Your task to perform on an android device: Empty the shopping cart on newegg. Add jbl flip 4 to the cart on newegg Image 0: 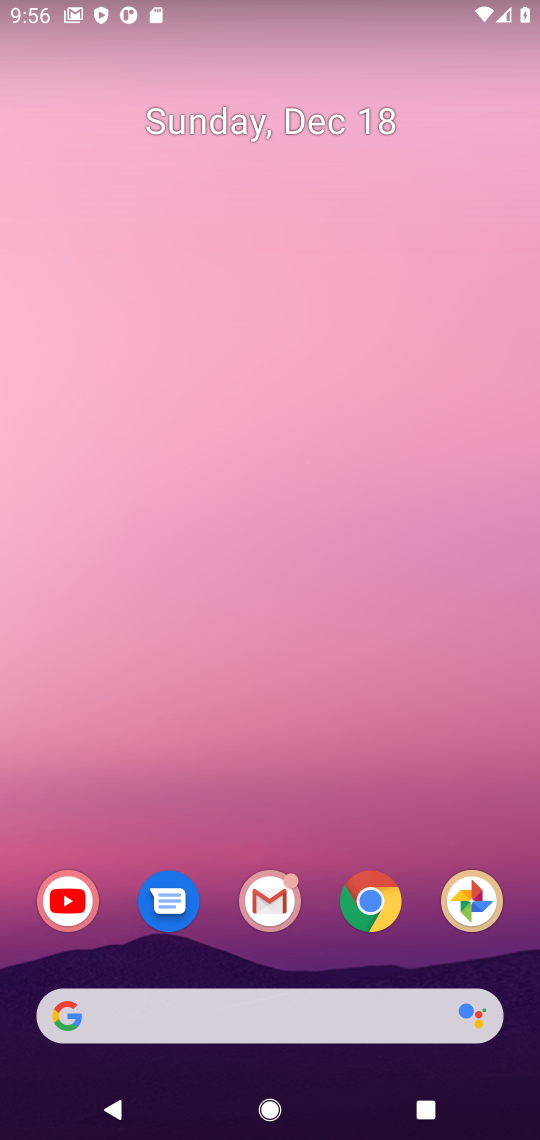
Step 0: click (381, 918)
Your task to perform on an android device: Empty the shopping cart on newegg. Add jbl flip 4 to the cart on newegg Image 1: 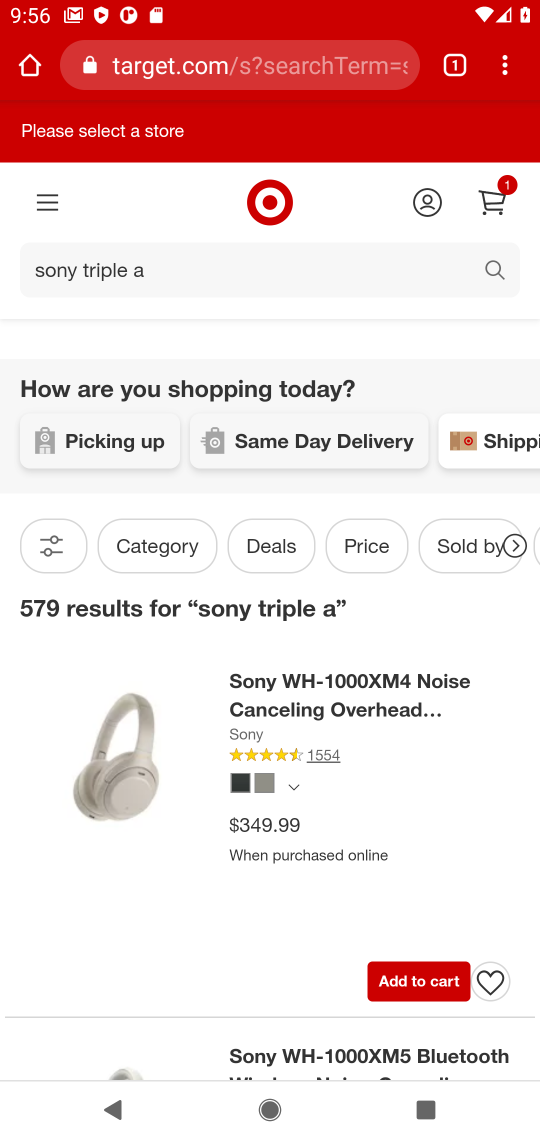
Step 1: click (141, 78)
Your task to perform on an android device: Empty the shopping cart on newegg. Add jbl flip 4 to the cart on newegg Image 2: 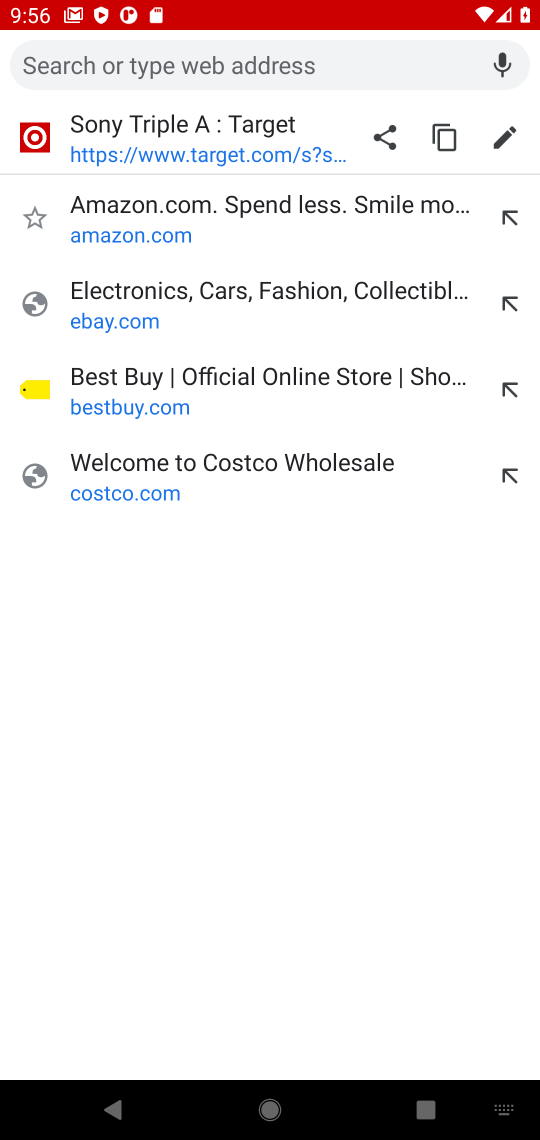
Step 2: type "newegg"
Your task to perform on an android device: Empty the shopping cart on newegg. Add jbl flip 4 to the cart on newegg Image 3: 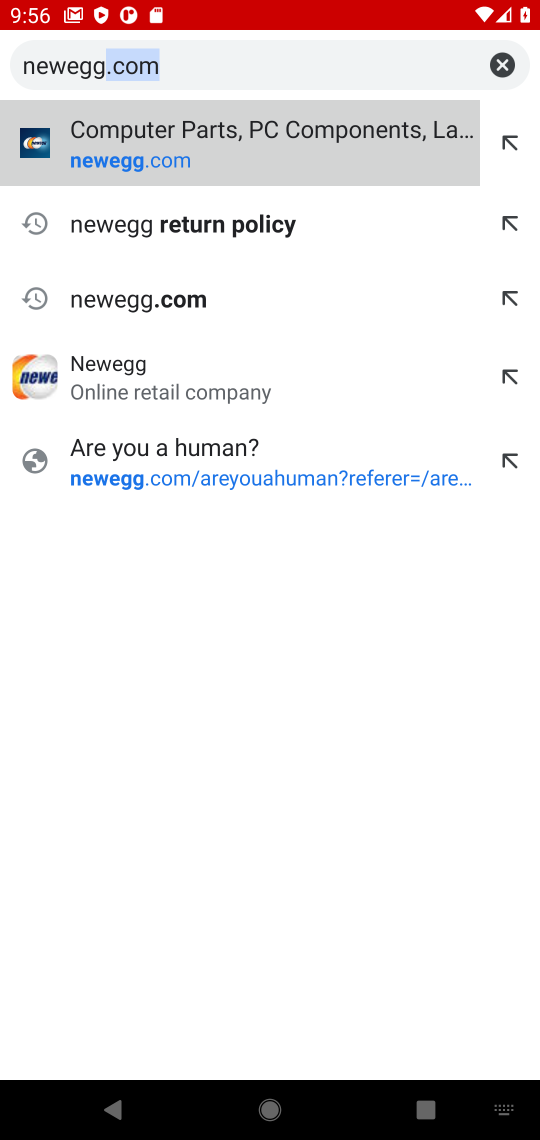
Step 3: click (232, 146)
Your task to perform on an android device: Empty the shopping cart on newegg. Add jbl flip 4 to the cart on newegg Image 4: 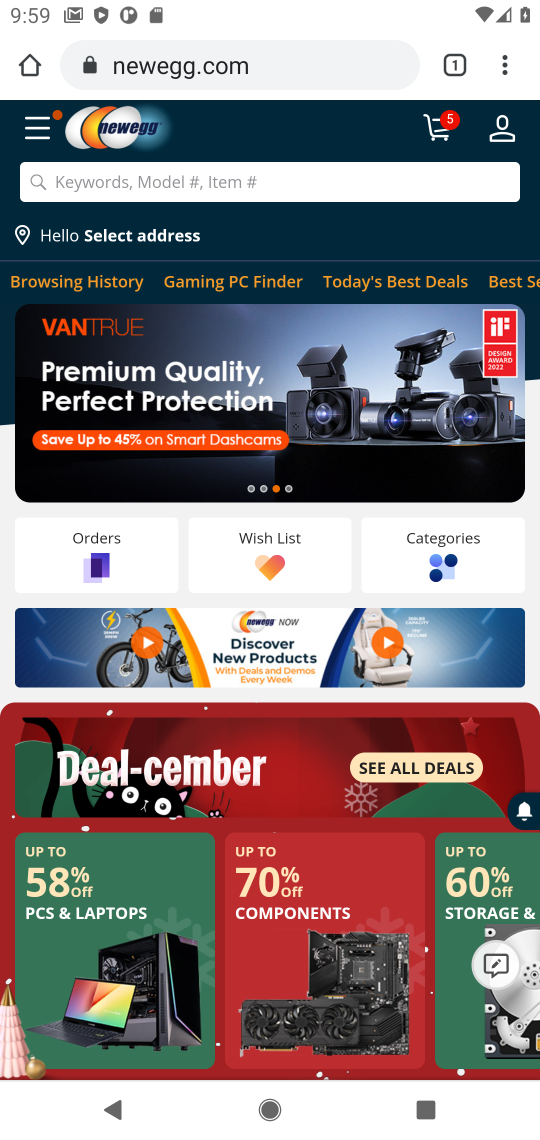
Step 4: task complete